Your task to perform on an android device: Open Wikipedia Image 0: 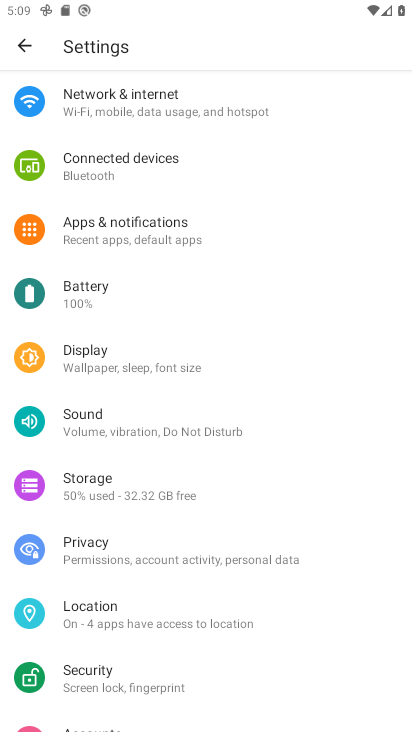
Step 0: press back button
Your task to perform on an android device: Open Wikipedia Image 1: 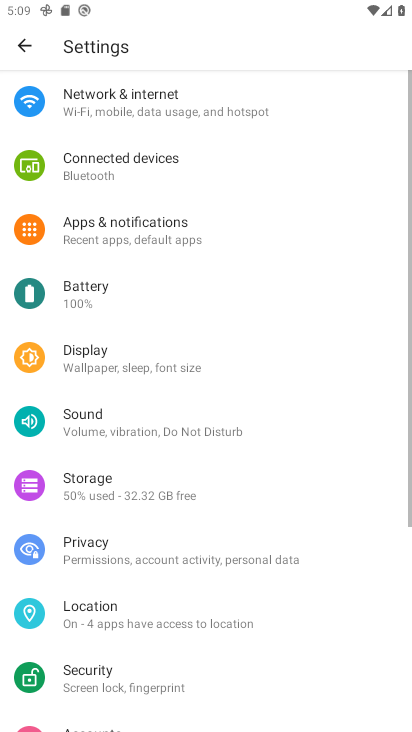
Step 1: press back button
Your task to perform on an android device: Open Wikipedia Image 2: 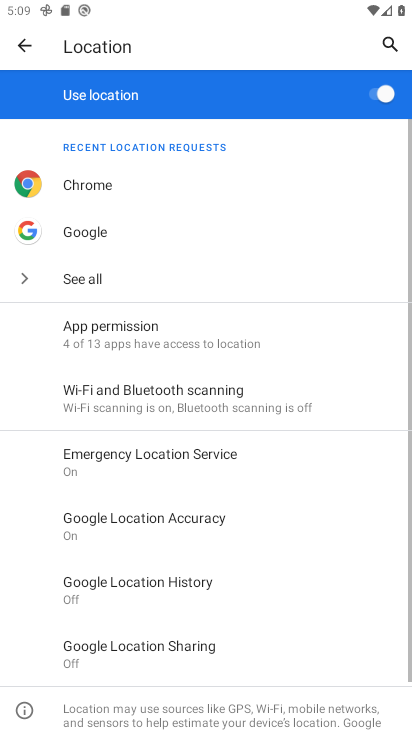
Step 2: press home button
Your task to perform on an android device: Open Wikipedia Image 3: 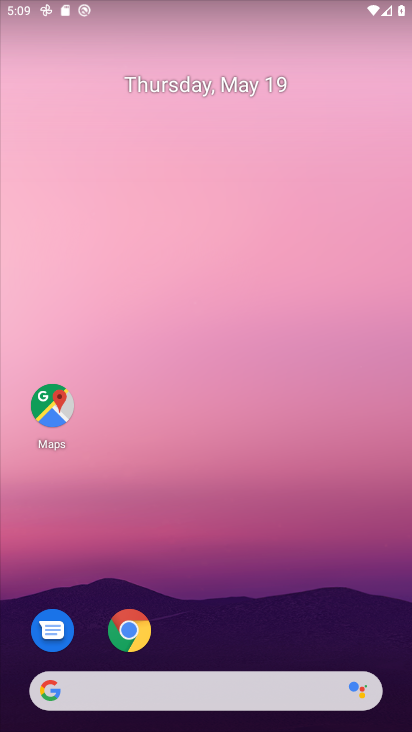
Step 3: drag from (244, 556) to (207, 19)
Your task to perform on an android device: Open Wikipedia Image 4: 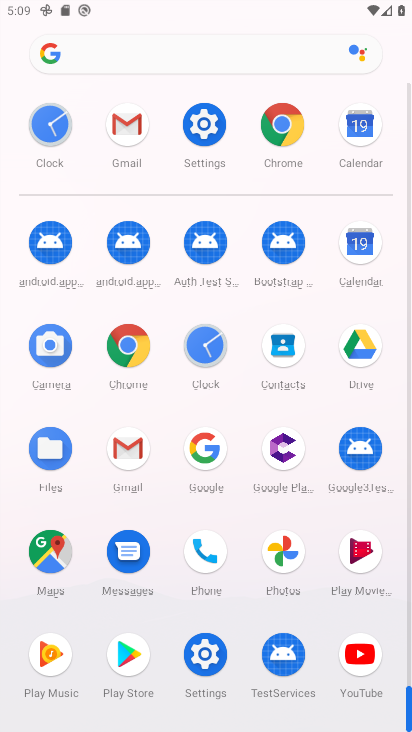
Step 4: click (132, 339)
Your task to perform on an android device: Open Wikipedia Image 5: 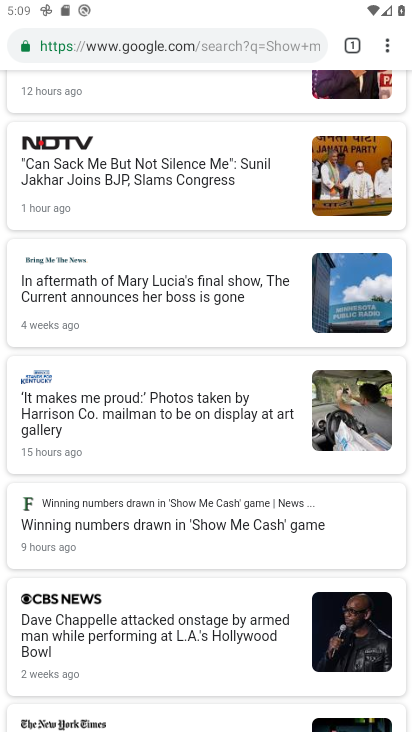
Step 5: click (174, 37)
Your task to perform on an android device: Open Wikipedia Image 6: 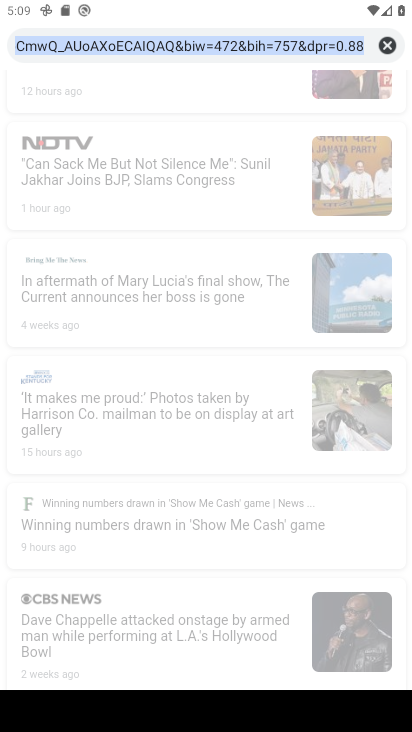
Step 6: click (382, 36)
Your task to perform on an android device: Open Wikipedia Image 7: 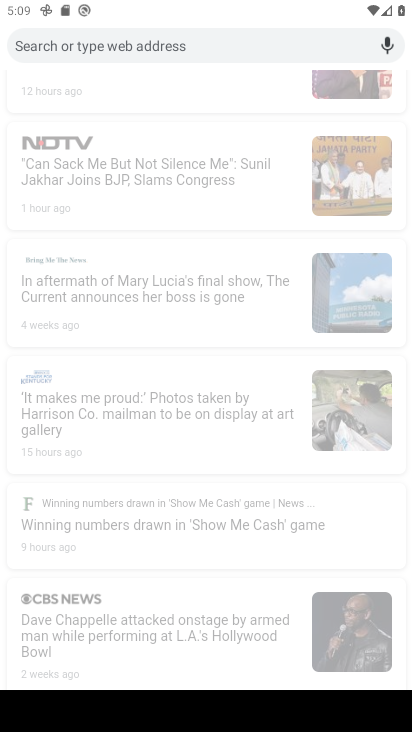
Step 7: type "Wikipedia"
Your task to perform on an android device: Open Wikipedia Image 8: 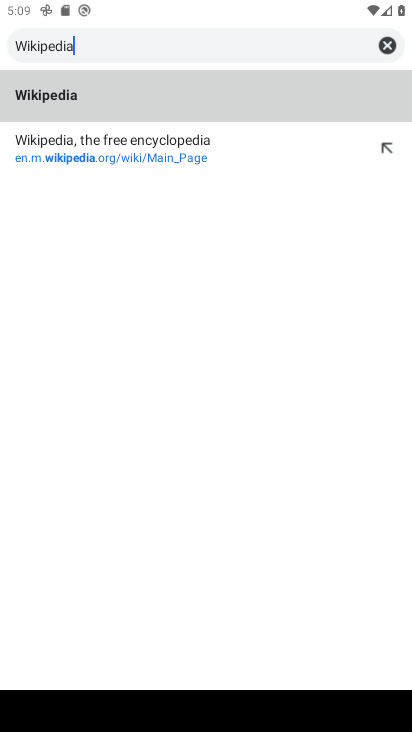
Step 8: type ""
Your task to perform on an android device: Open Wikipedia Image 9: 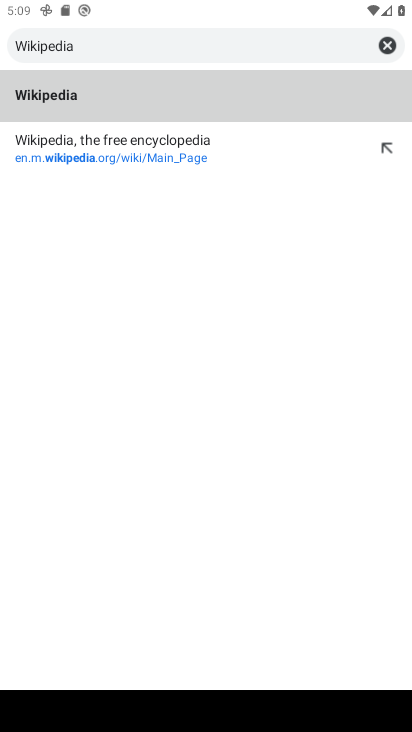
Step 9: click (84, 148)
Your task to perform on an android device: Open Wikipedia Image 10: 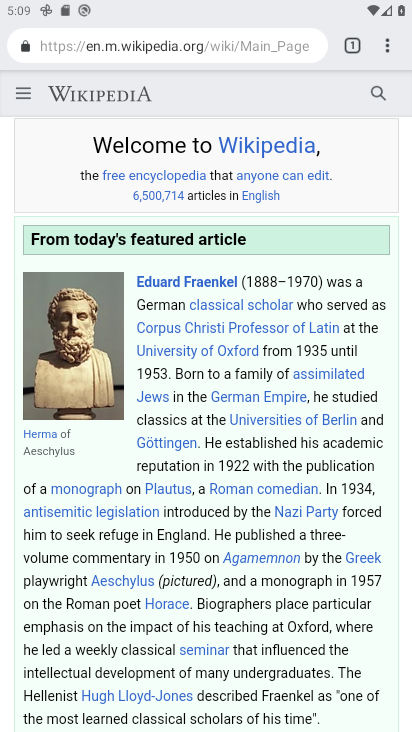
Step 10: task complete